Your task to perform on an android device: turn on bluetooth scan Image 0: 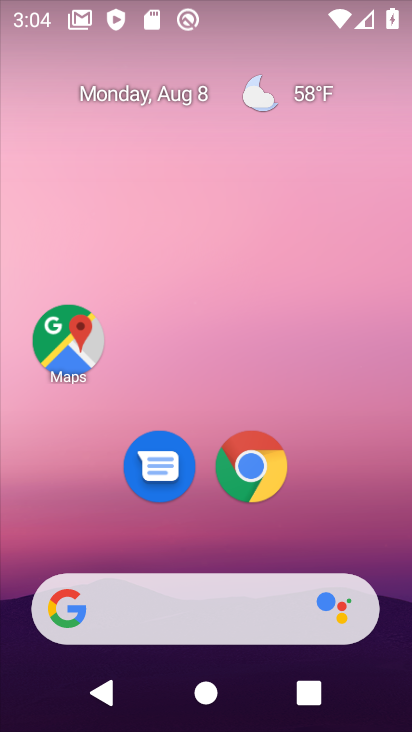
Step 0: drag from (171, 560) to (165, 62)
Your task to perform on an android device: turn on bluetooth scan Image 1: 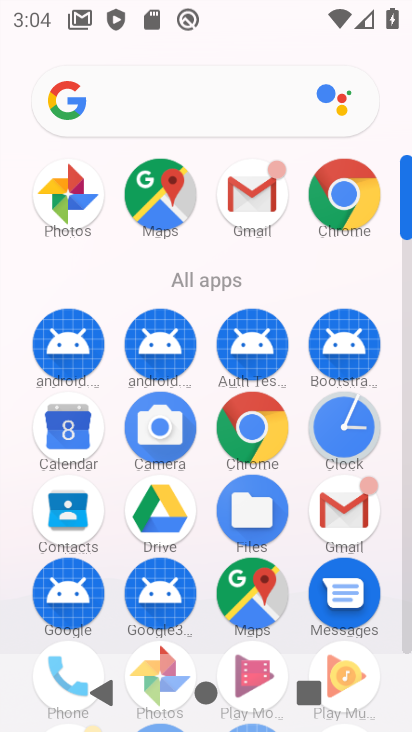
Step 1: drag from (200, 582) to (248, 134)
Your task to perform on an android device: turn on bluetooth scan Image 2: 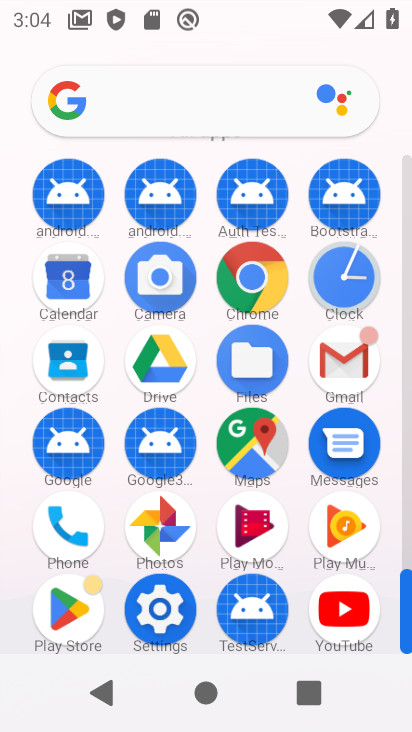
Step 2: click (160, 608)
Your task to perform on an android device: turn on bluetooth scan Image 3: 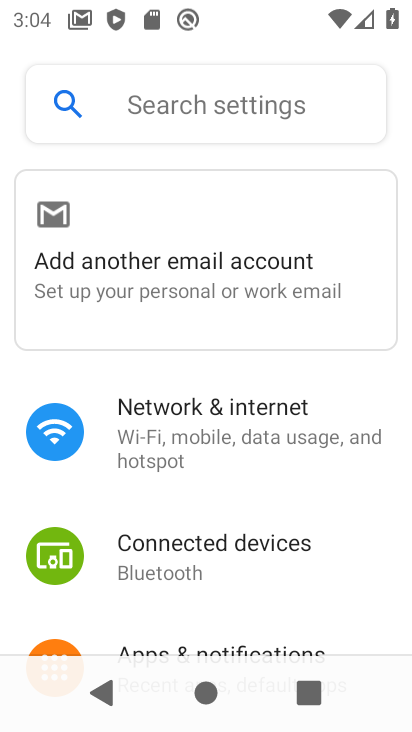
Step 3: click (193, 85)
Your task to perform on an android device: turn on bluetooth scan Image 4: 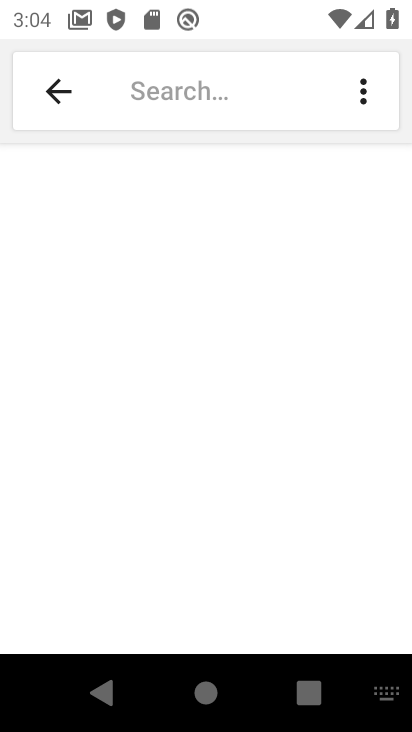
Step 4: type " bluetooth scan "
Your task to perform on an android device: turn on bluetooth scan Image 5: 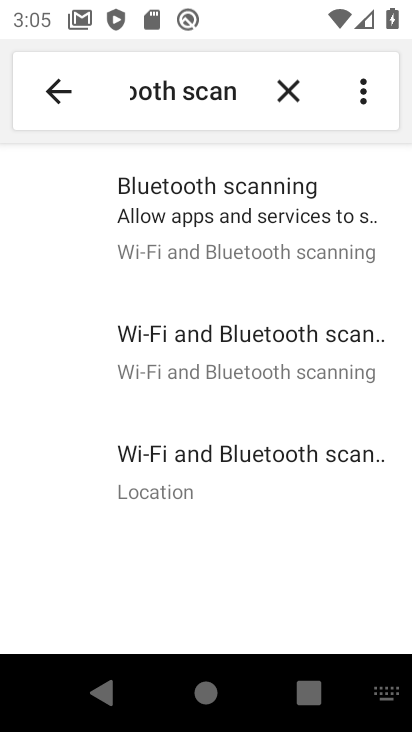
Step 5: click (174, 202)
Your task to perform on an android device: turn on bluetooth scan Image 6: 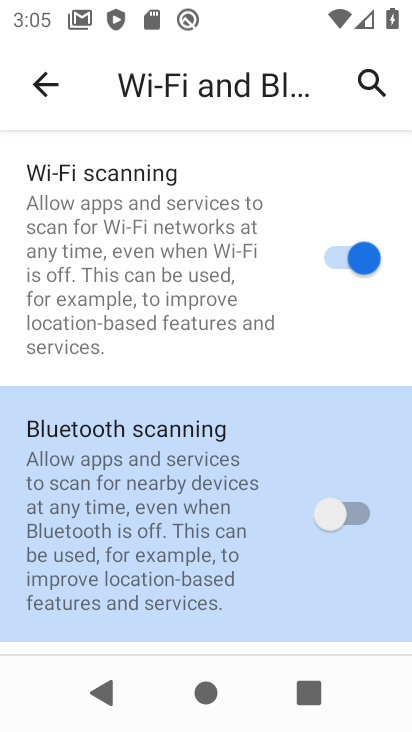
Step 6: click (326, 524)
Your task to perform on an android device: turn on bluetooth scan Image 7: 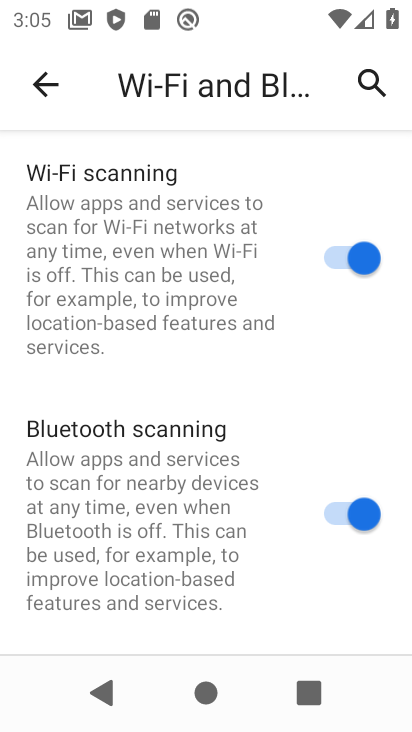
Step 7: task complete